Your task to perform on an android device: Open the calendar app, open the side menu, and click the "Day" option Image 0: 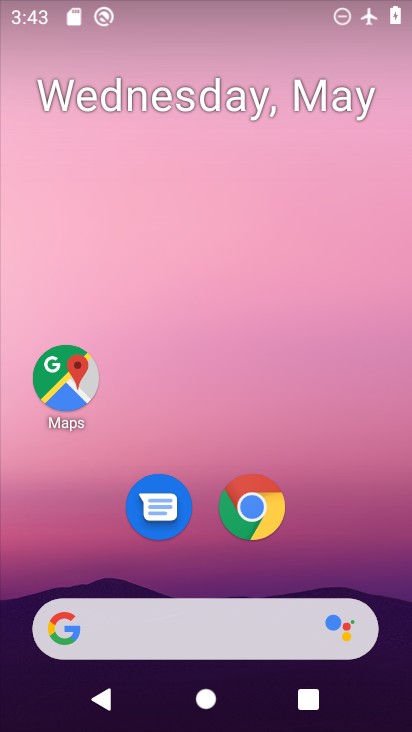
Step 0: drag from (249, 620) to (249, 117)
Your task to perform on an android device: Open the calendar app, open the side menu, and click the "Day" option Image 1: 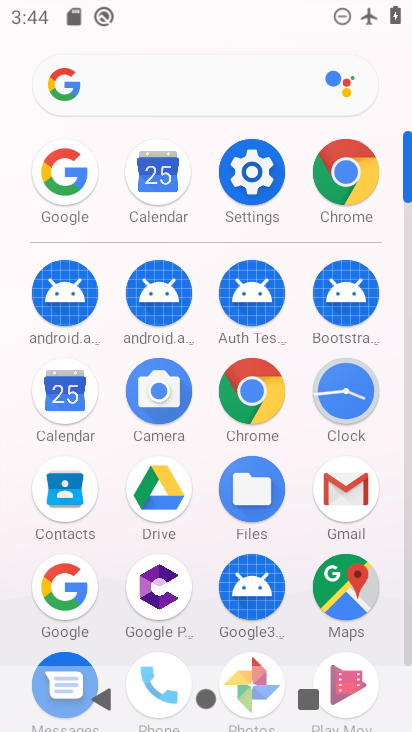
Step 1: click (73, 409)
Your task to perform on an android device: Open the calendar app, open the side menu, and click the "Day" option Image 2: 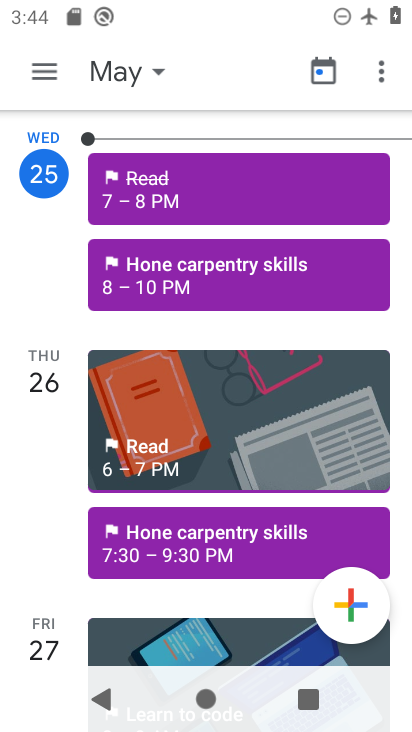
Step 2: click (51, 71)
Your task to perform on an android device: Open the calendar app, open the side menu, and click the "Day" option Image 3: 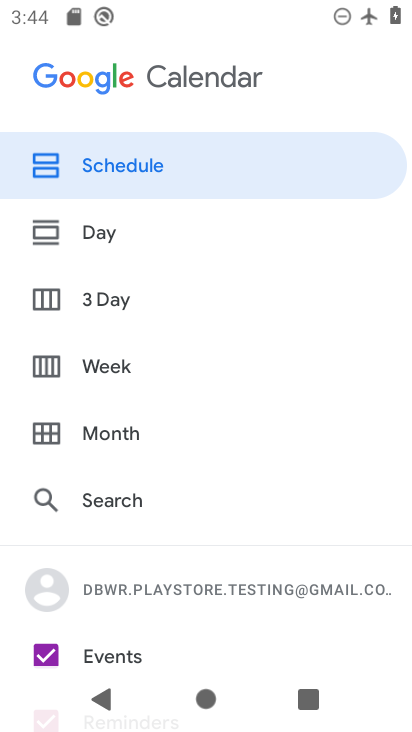
Step 3: click (170, 227)
Your task to perform on an android device: Open the calendar app, open the side menu, and click the "Day" option Image 4: 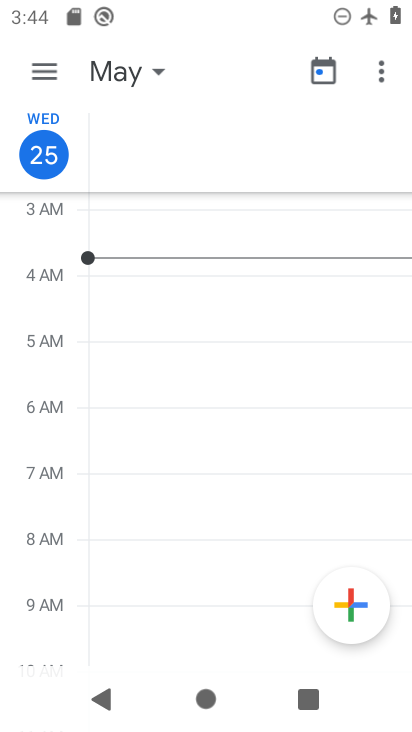
Step 4: task complete